Your task to perform on an android device: open chrome and create a bookmark for the current page Image 0: 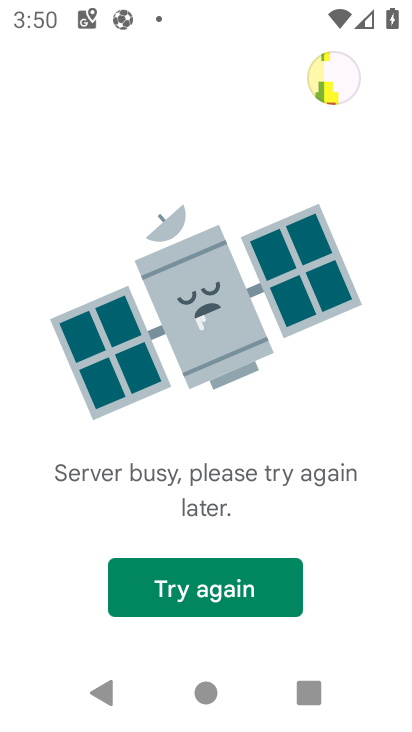
Step 0: press home button
Your task to perform on an android device: open chrome and create a bookmark for the current page Image 1: 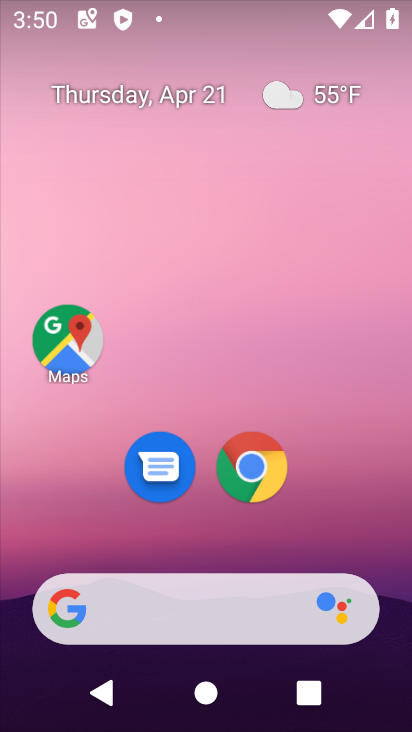
Step 1: drag from (265, 610) to (308, 204)
Your task to perform on an android device: open chrome and create a bookmark for the current page Image 2: 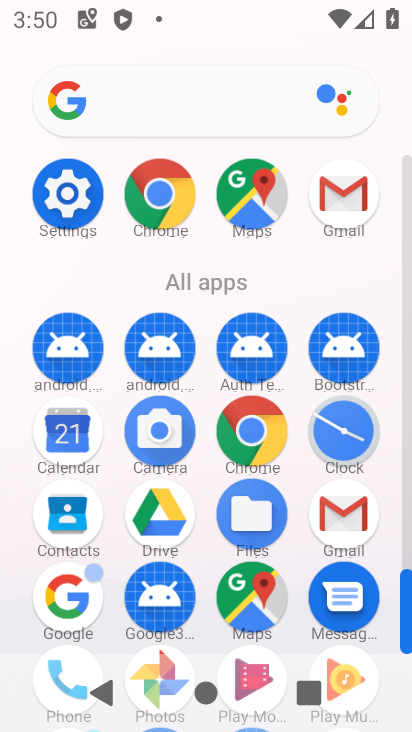
Step 2: click (250, 449)
Your task to perform on an android device: open chrome and create a bookmark for the current page Image 3: 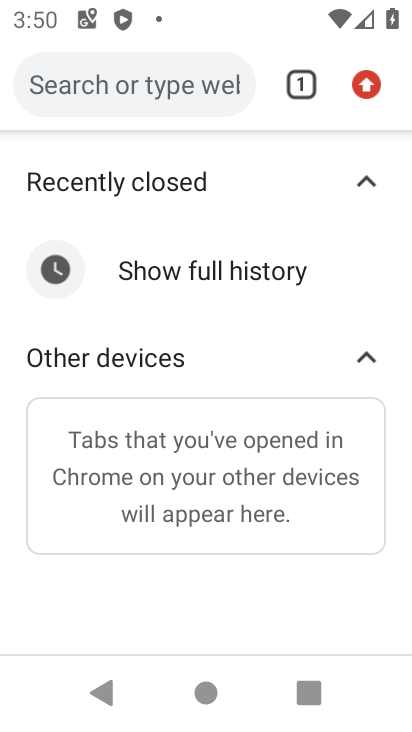
Step 3: drag from (366, 95) to (214, 442)
Your task to perform on an android device: open chrome and create a bookmark for the current page Image 4: 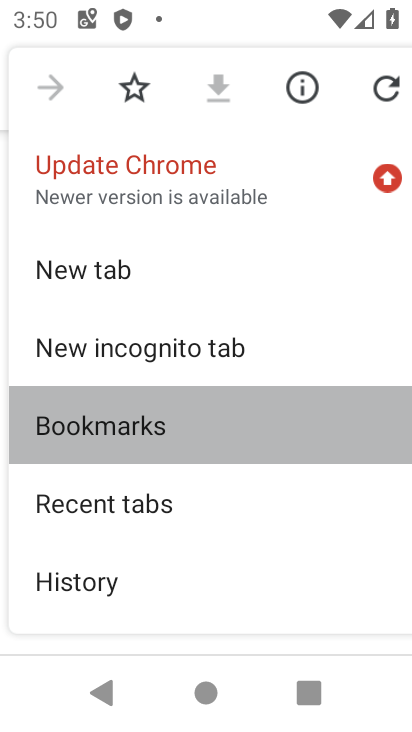
Step 4: click (211, 441)
Your task to perform on an android device: open chrome and create a bookmark for the current page Image 5: 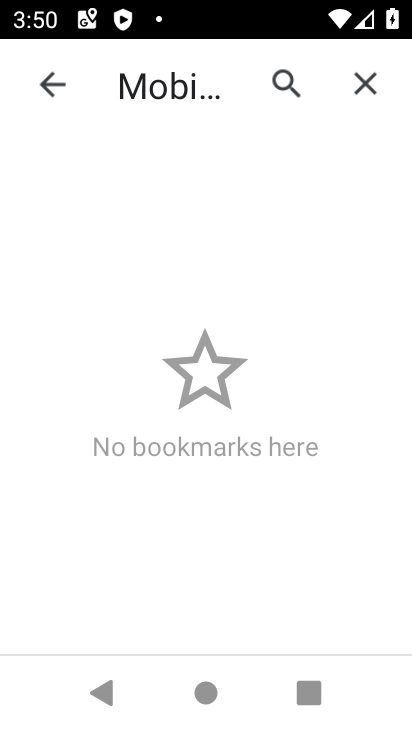
Step 5: task complete